Your task to perform on an android device: turn off airplane mode Image 0: 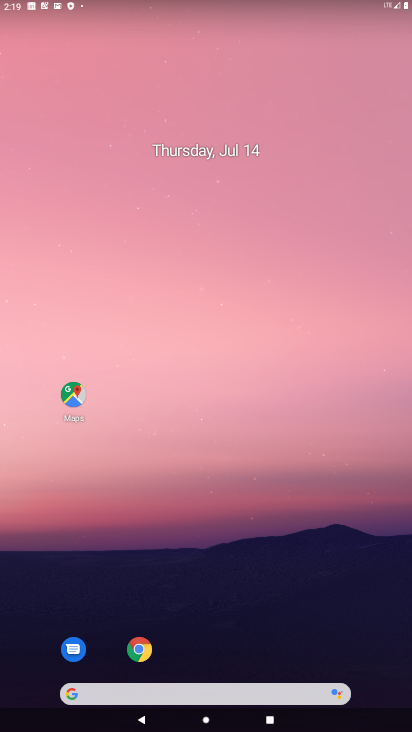
Step 0: drag from (313, 6) to (396, 710)
Your task to perform on an android device: turn off airplane mode Image 1: 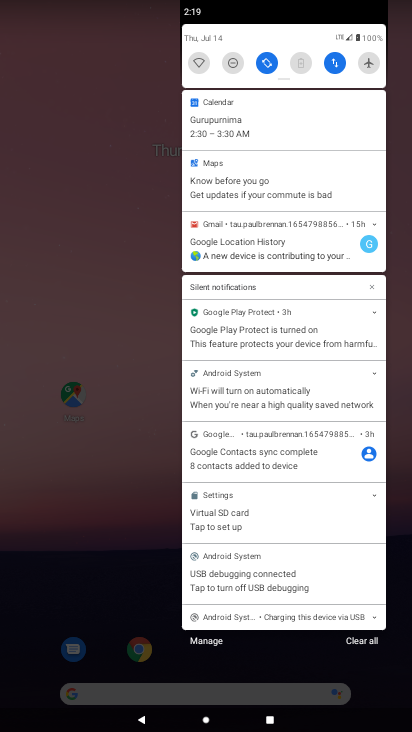
Step 1: task complete